Your task to perform on an android device: Open my contact list Image 0: 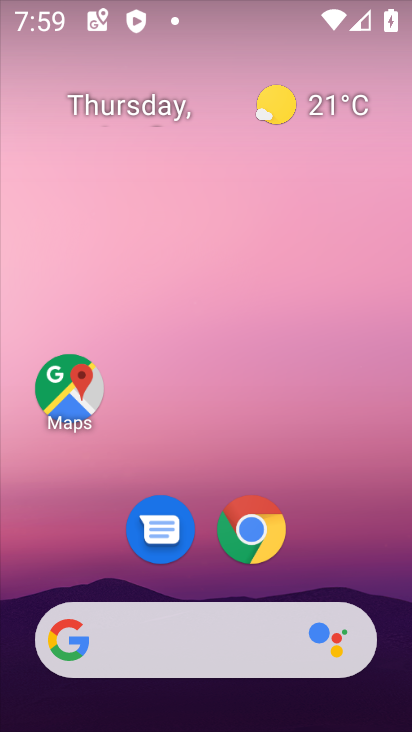
Step 0: drag from (166, 725) to (174, 136)
Your task to perform on an android device: Open my contact list Image 1: 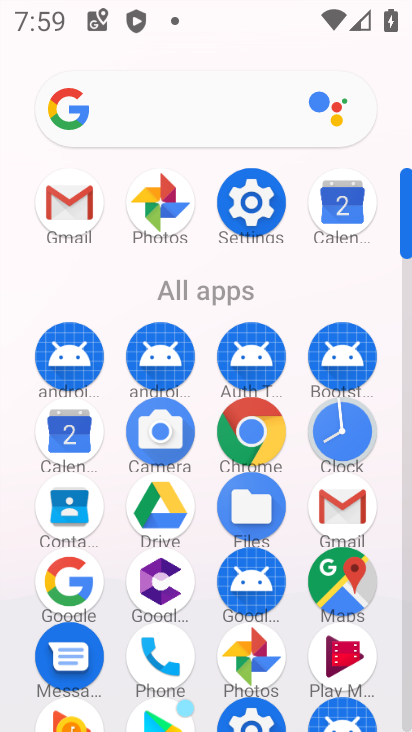
Step 1: click (66, 509)
Your task to perform on an android device: Open my contact list Image 2: 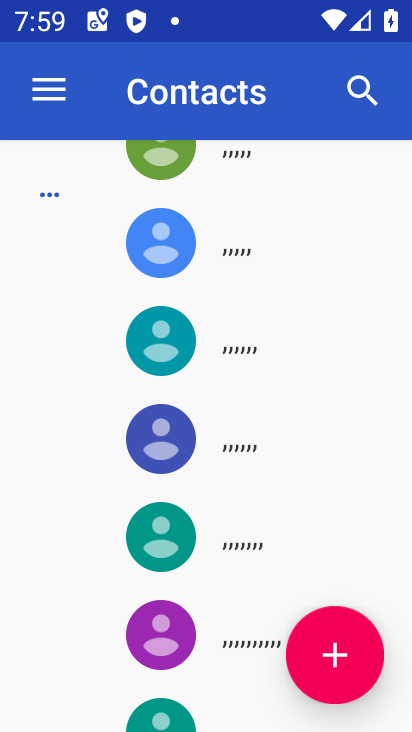
Step 2: task complete